Your task to perform on an android device: change your default location settings in chrome Image 0: 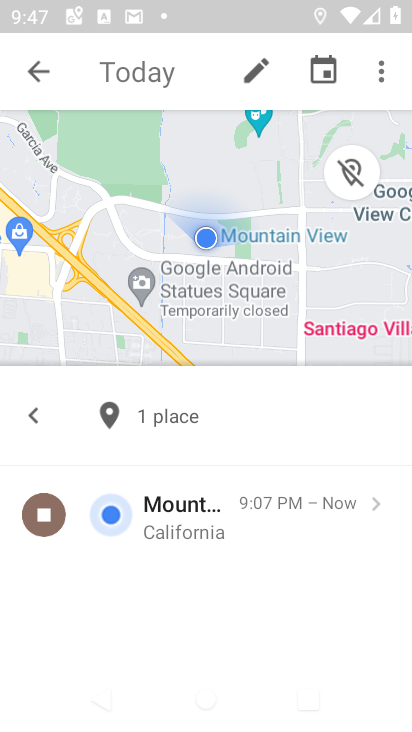
Step 0: task complete